Your task to perform on an android device: Do I have any events today? Image 0: 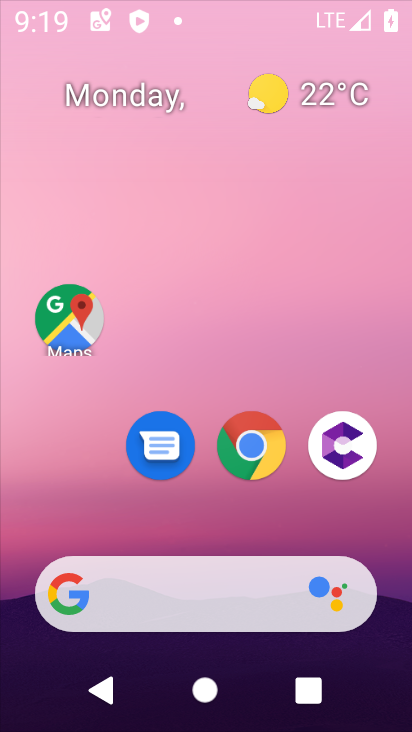
Step 0: press home button
Your task to perform on an android device: Do I have any events today? Image 1: 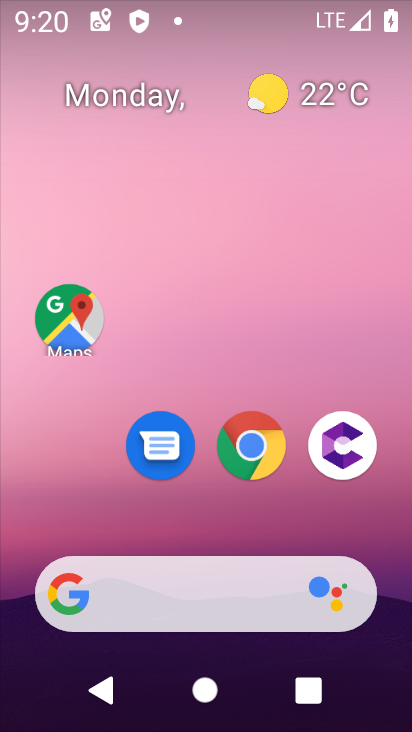
Step 1: drag from (204, 526) to (187, 0)
Your task to perform on an android device: Do I have any events today? Image 2: 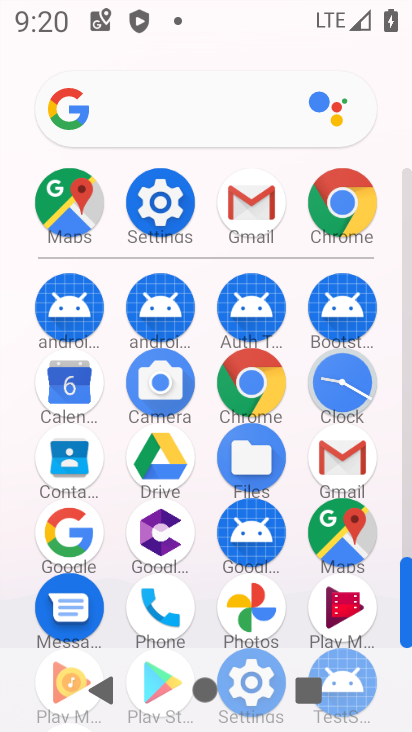
Step 2: click (57, 384)
Your task to perform on an android device: Do I have any events today? Image 3: 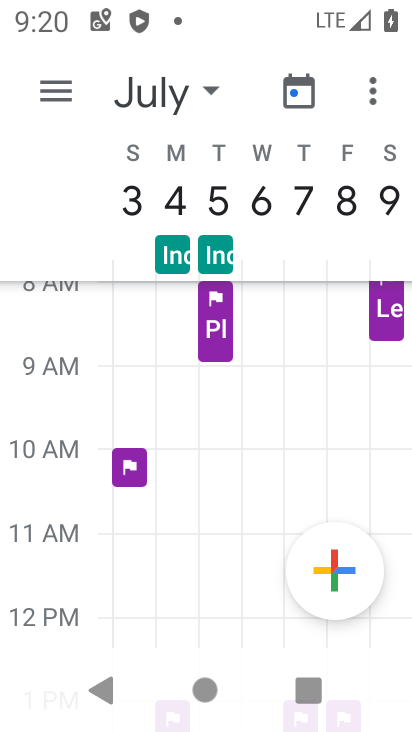
Step 3: task complete